Your task to perform on an android device: Open the Play Movies app and select the watchlist tab. Image 0: 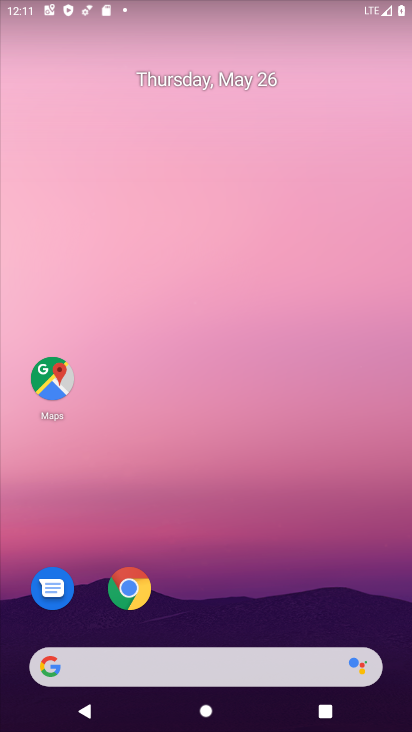
Step 0: drag from (243, 556) to (152, 42)
Your task to perform on an android device: Open the Play Movies app and select the watchlist tab. Image 1: 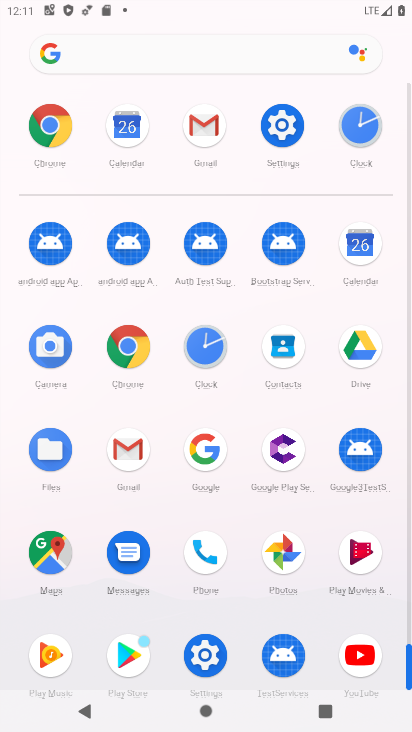
Step 1: drag from (17, 546) to (24, 235)
Your task to perform on an android device: Open the Play Movies app and select the watchlist tab. Image 2: 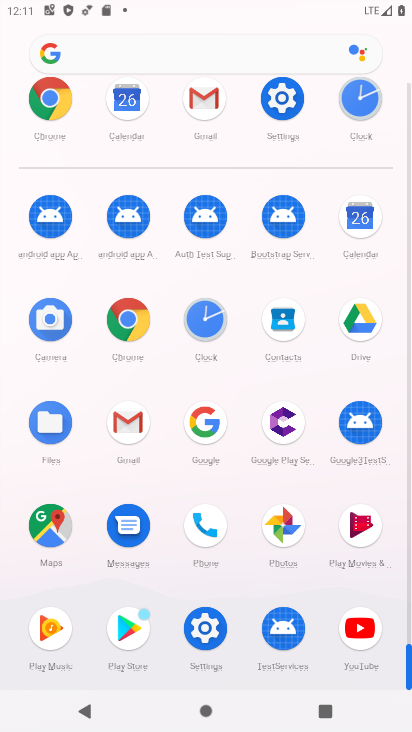
Step 2: click (361, 525)
Your task to perform on an android device: Open the Play Movies app and select the watchlist tab. Image 3: 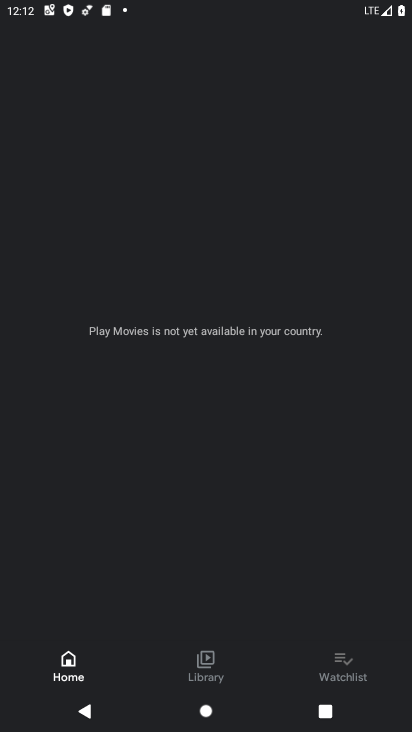
Step 3: click (340, 662)
Your task to perform on an android device: Open the Play Movies app and select the watchlist tab. Image 4: 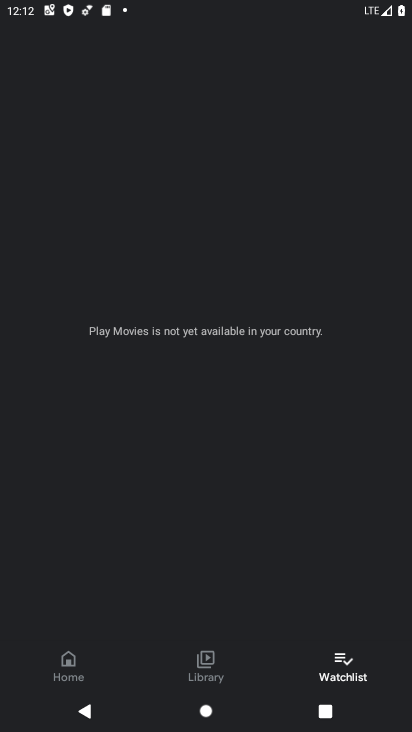
Step 4: task complete